Your task to perform on an android device: empty trash in the gmail app Image 0: 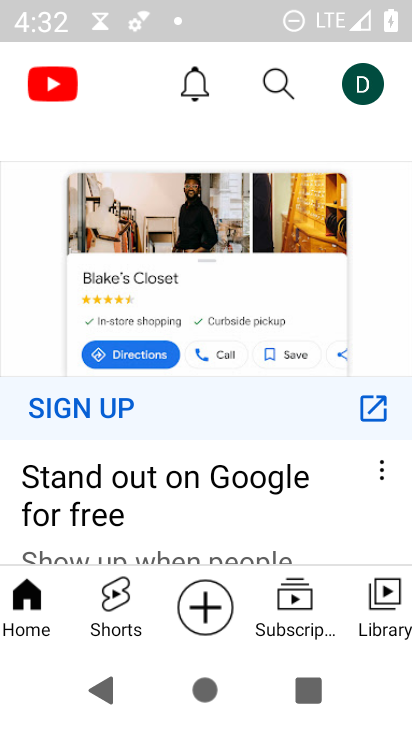
Step 0: press home button
Your task to perform on an android device: empty trash in the gmail app Image 1: 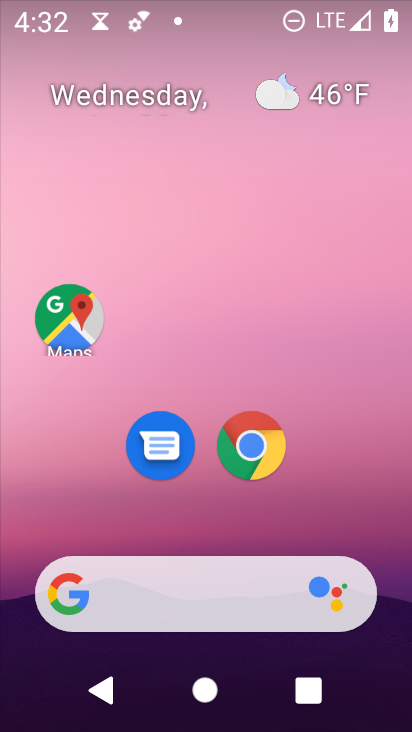
Step 1: drag from (317, 470) to (266, 43)
Your task to perform on an android device: empty trash in the gmail app Image 2: 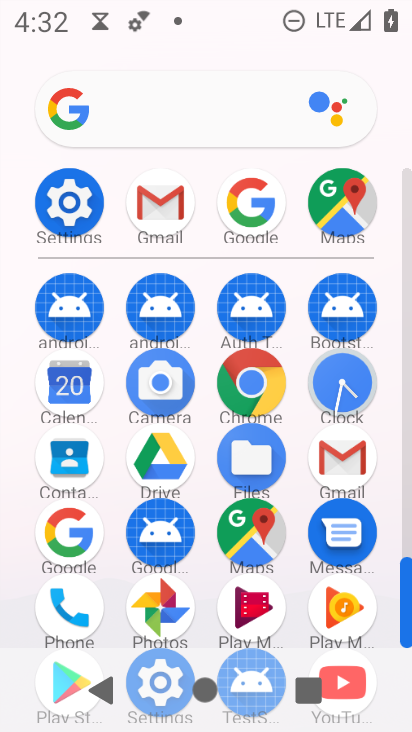
Step 2: click (160, 205)
Your task to perform on an android device: empty trash in the gmail app Image 3: 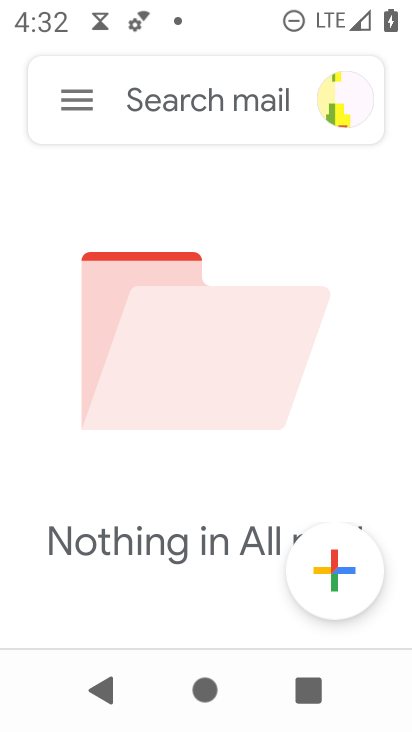
Step 3: click (70, 93)
Your task to perform on an android device: empty trash in the gmail app Image 4: 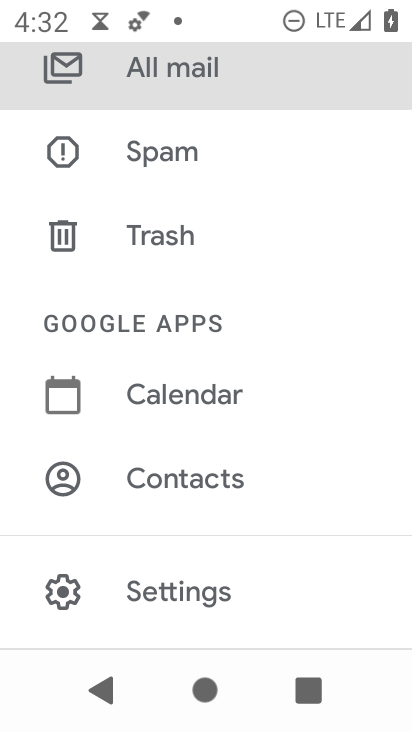
Step 4: click (176, 236)
Your task to perform on an android device: empty trash in the gmail app Image 5: 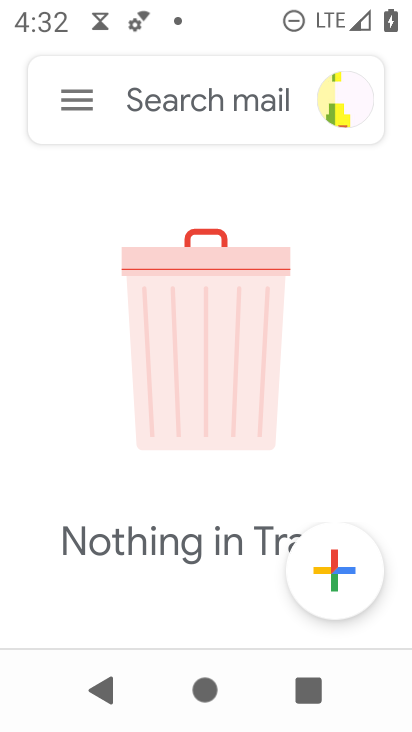
Step 5: task complete